Your task to perform on an android device: turn on location history Image 0: 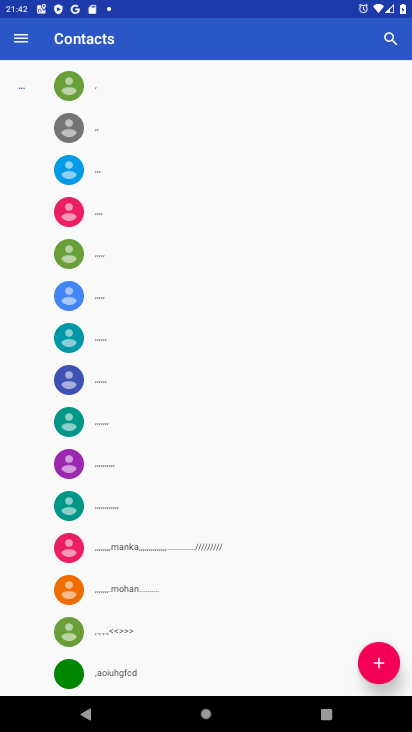
Step 0: press home button
Your task to perform on an android device: turn on location history Image 1: 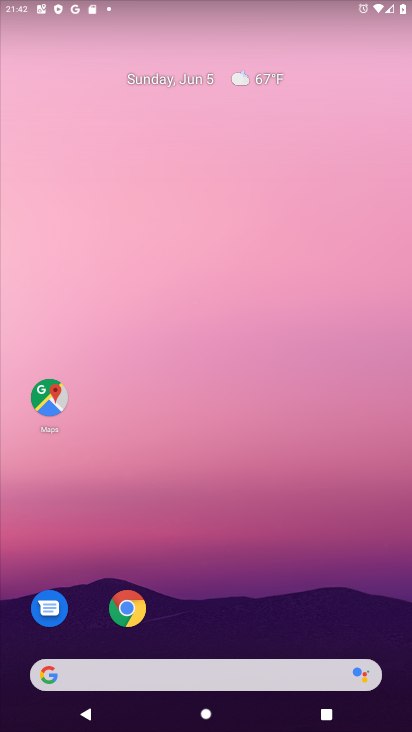
Step 1: task complete